Your task to perform on an android device: uninstall "Google Keep" Image 0: 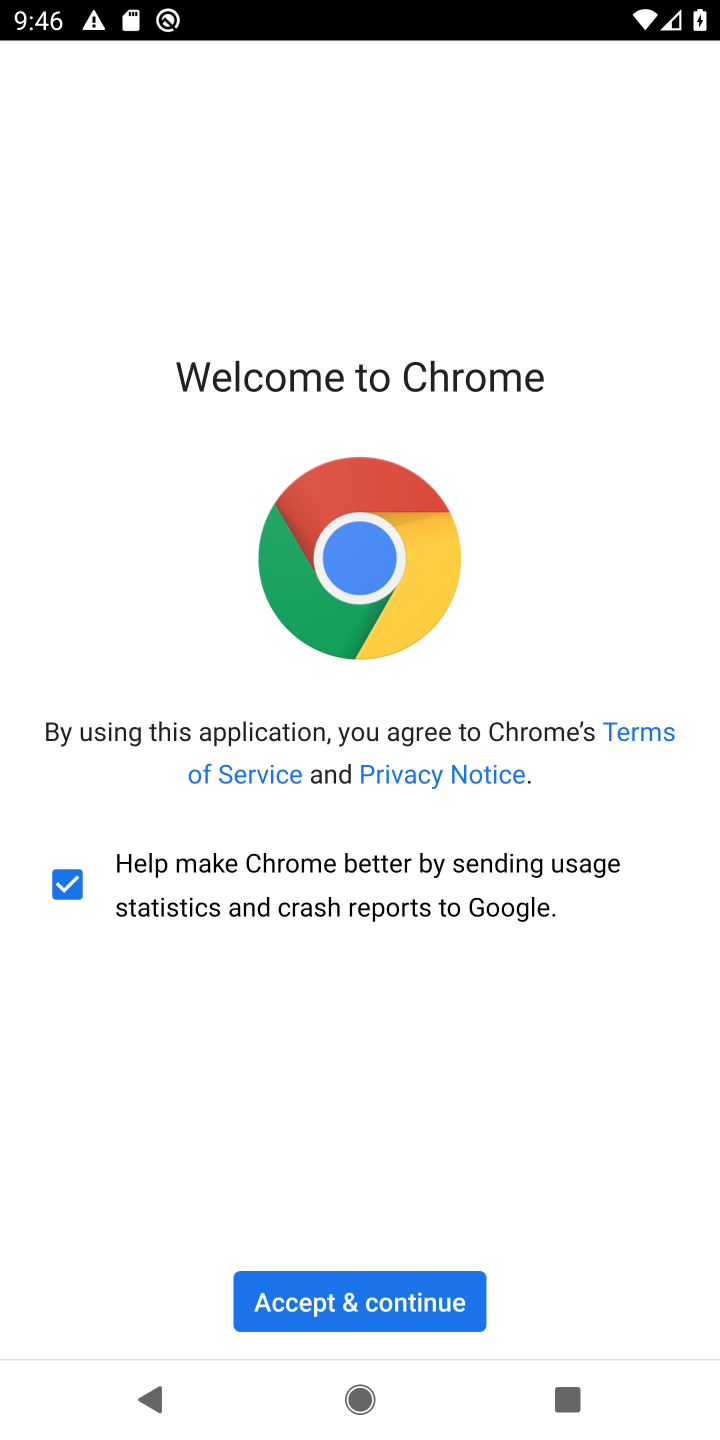
Step 0: press home button
Your task to perform on an android device: uninstall "Google Keep" Image 1: 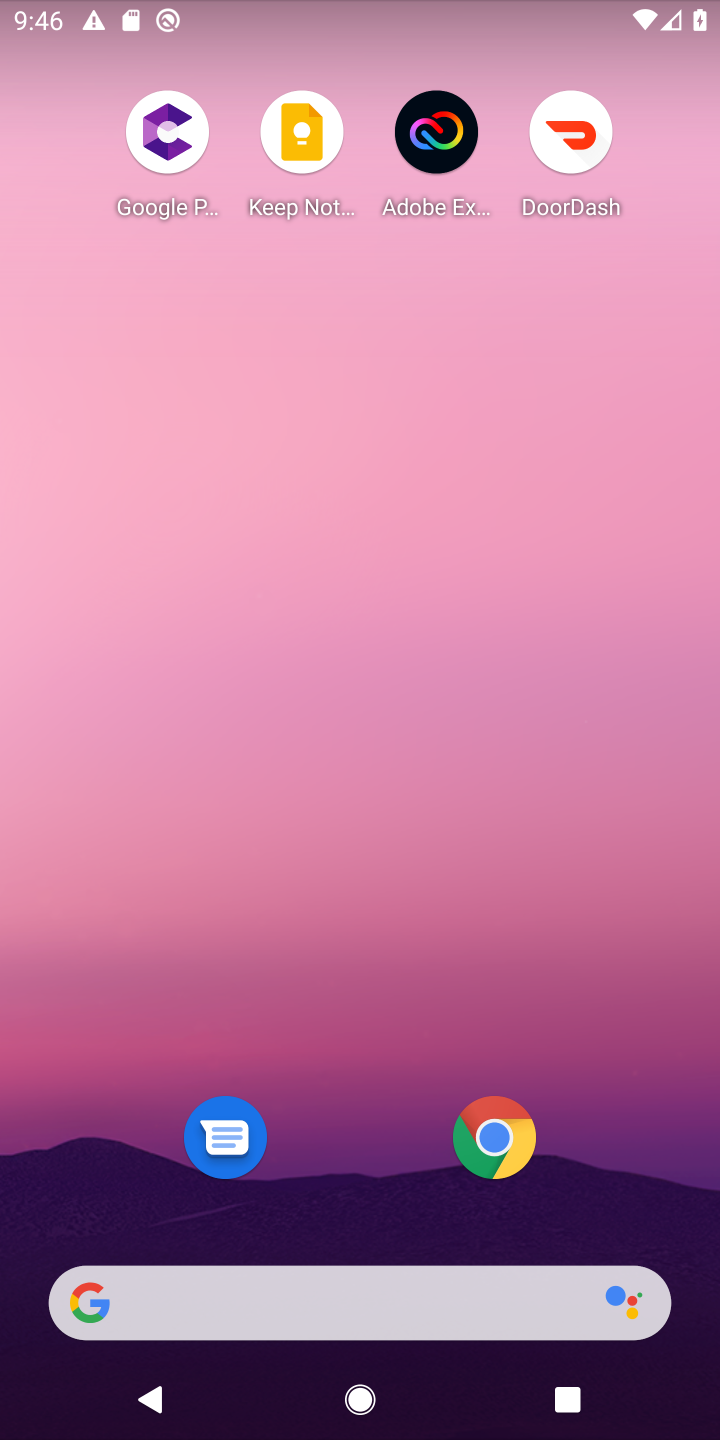
Step 1: press home button
Your task to perform on an android device: uninstall "Google Keep" Image 2: 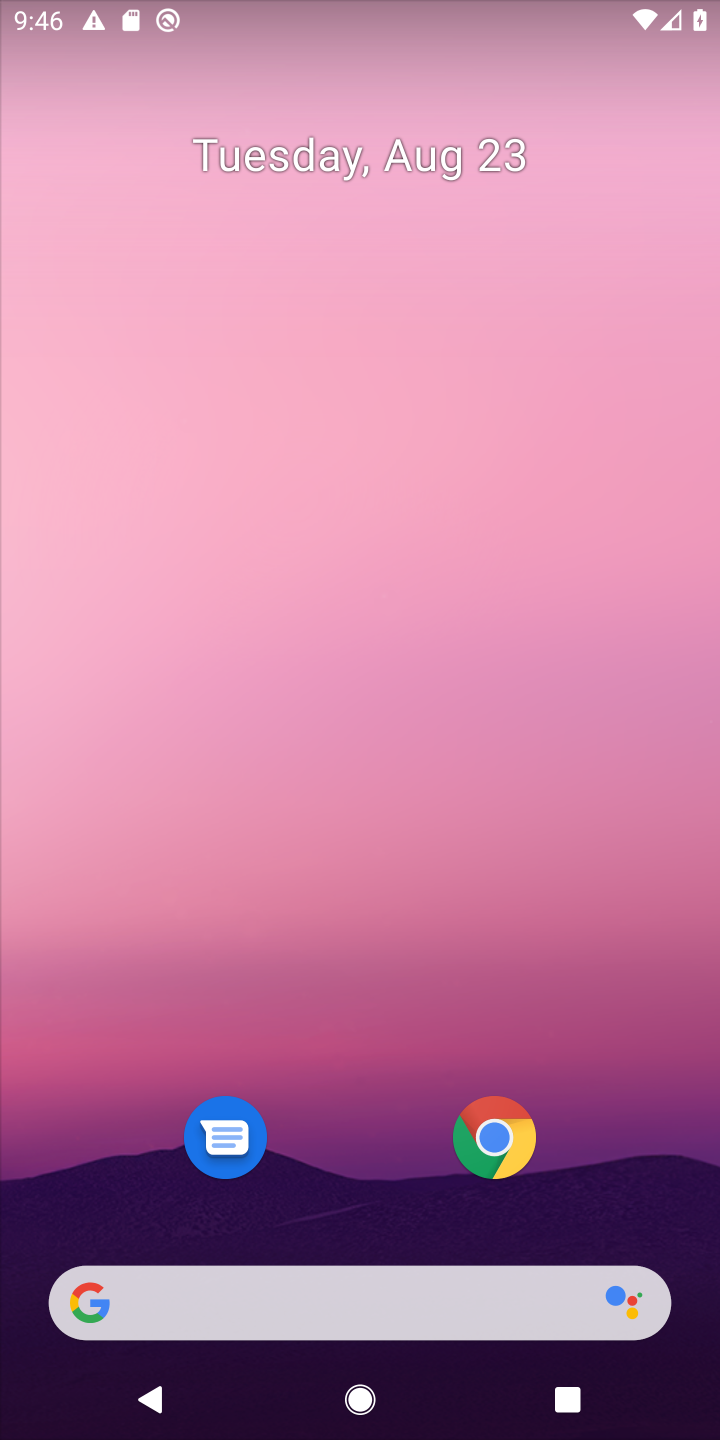
Step 2: drag from (356, 1207) to (655, 849)
Your task to perform on an android device: uninstall "Google Keep" Image 3: 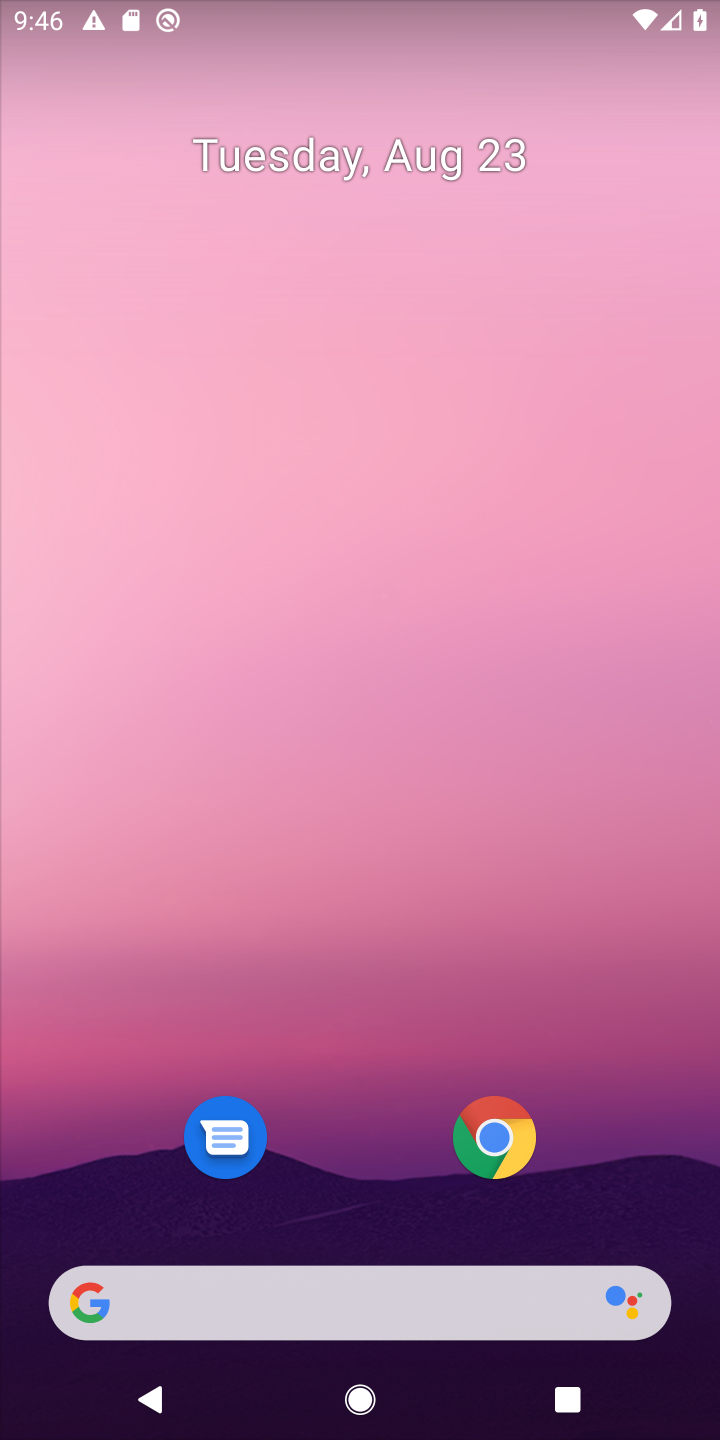
Step 3: drag from (436, 1220) to (412, 7)
Your task to perform on an android device: uninstall "Google Keep" Image 4: 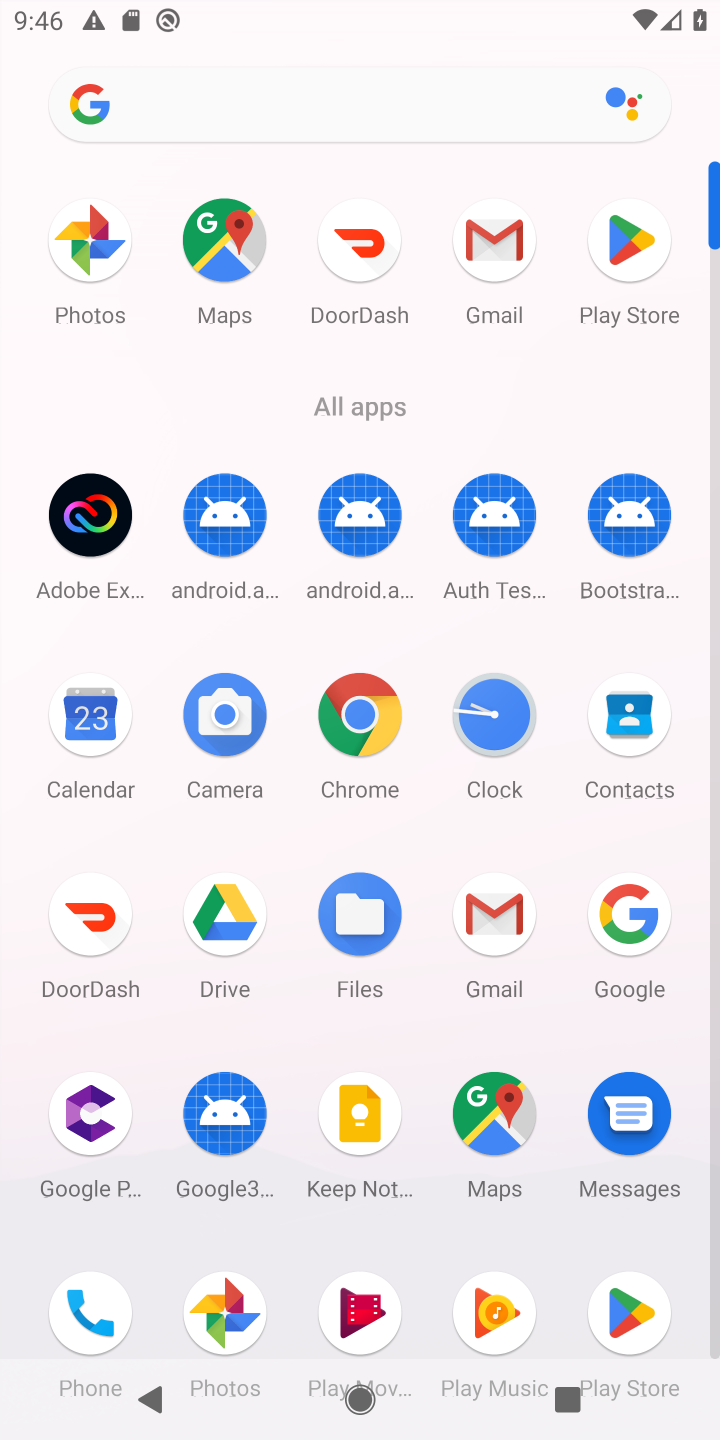
Step 4: click (618, 1318)
Your task to perform on an android device: uninstall "Google Keep" Image 5: 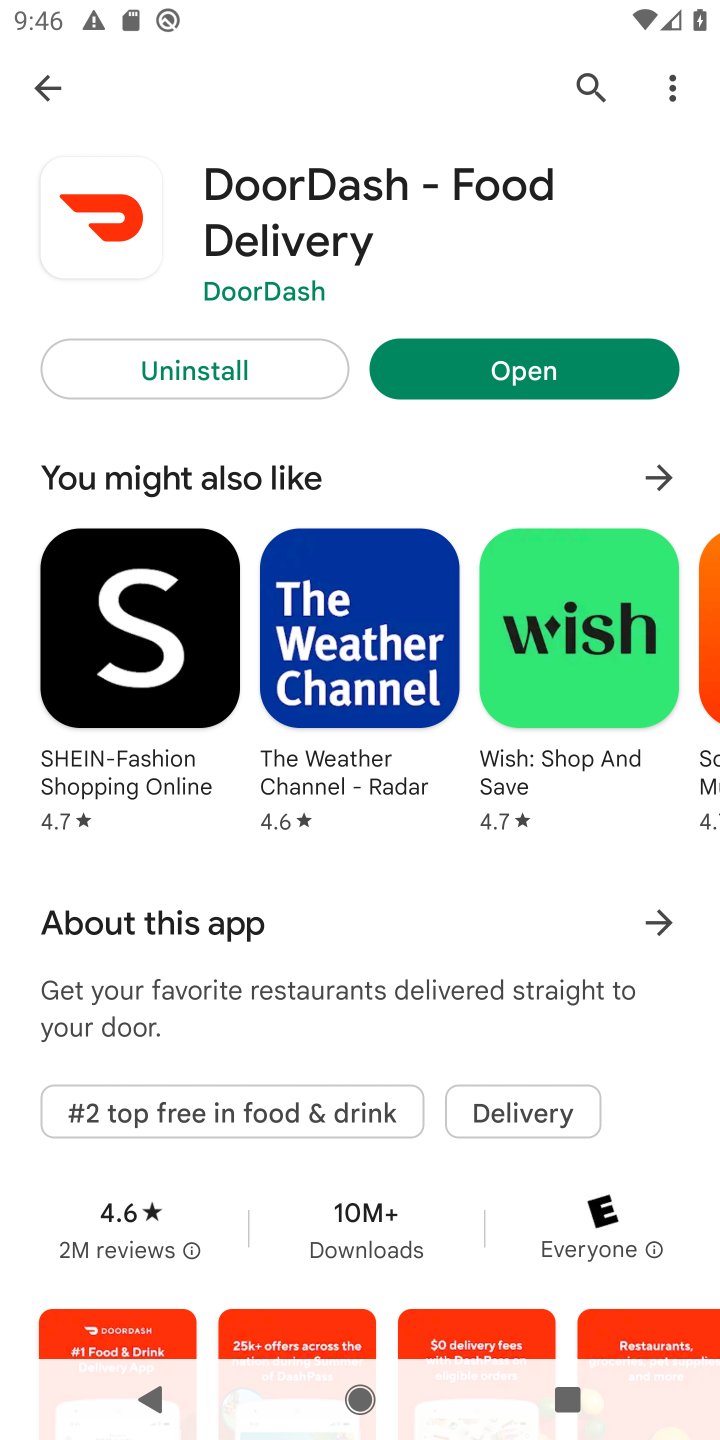
Step 5: click (30, 65)
Your task to perform on an android device: uninstall "Google Keep" Image 6: 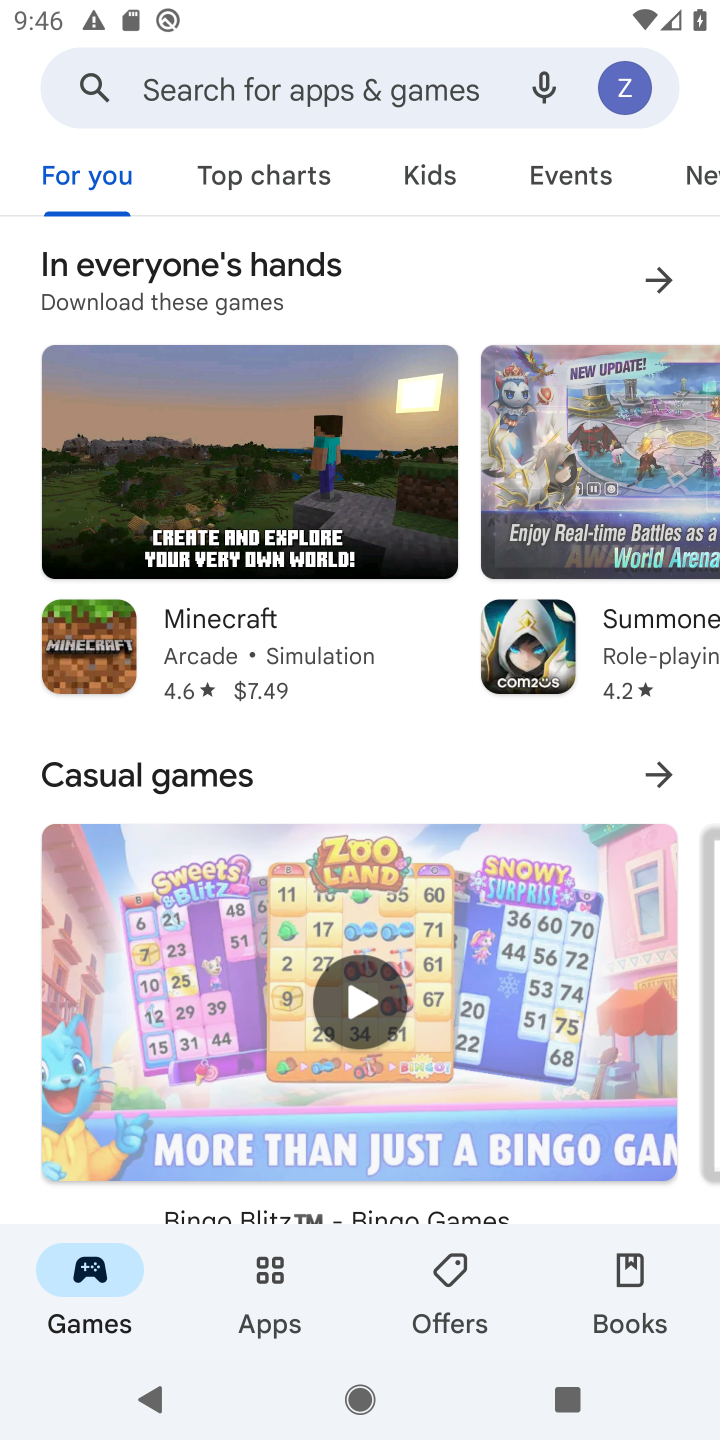
Step 6: click (188, 76)
Your task to perform on an android device: uninstall "Google Keep" Image 7: 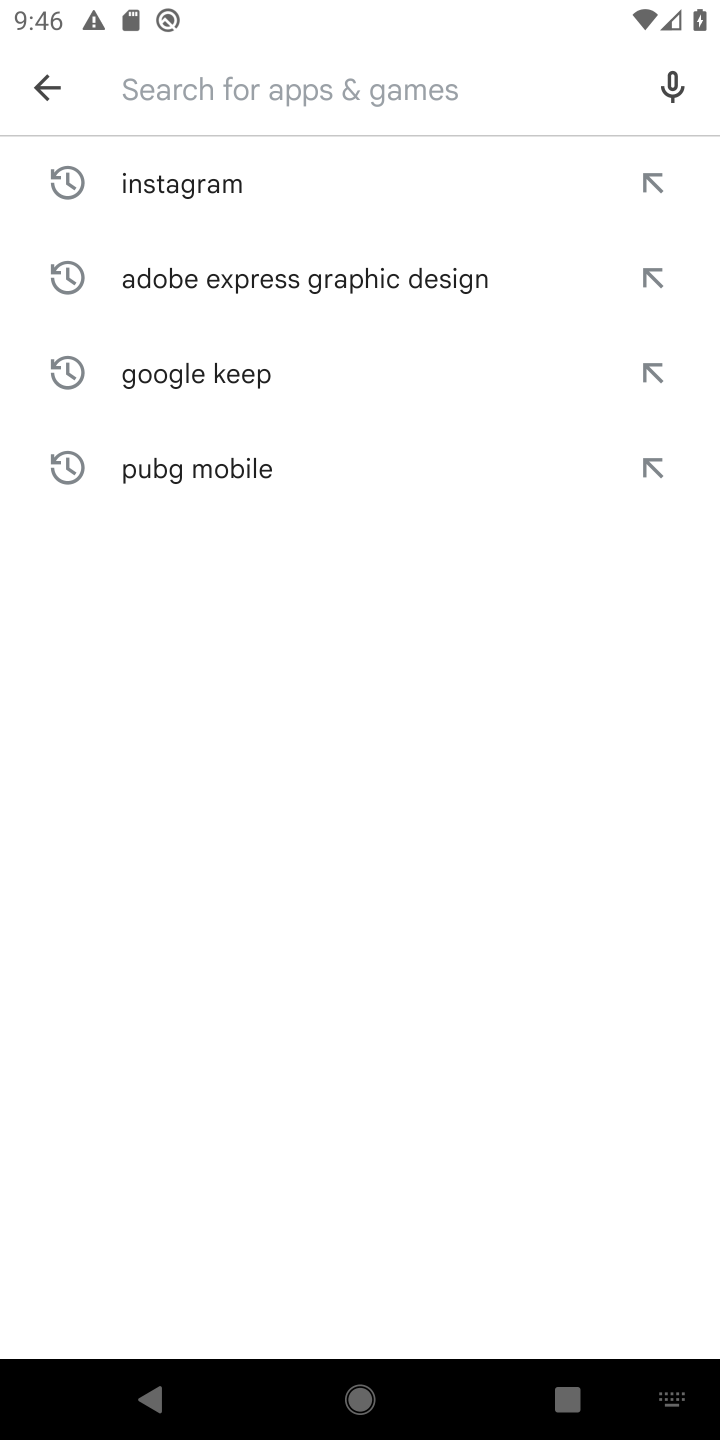
Step 7: click (380, 1416)
Your task to perform on an android device: uninstall "Google Keep" Image 8: 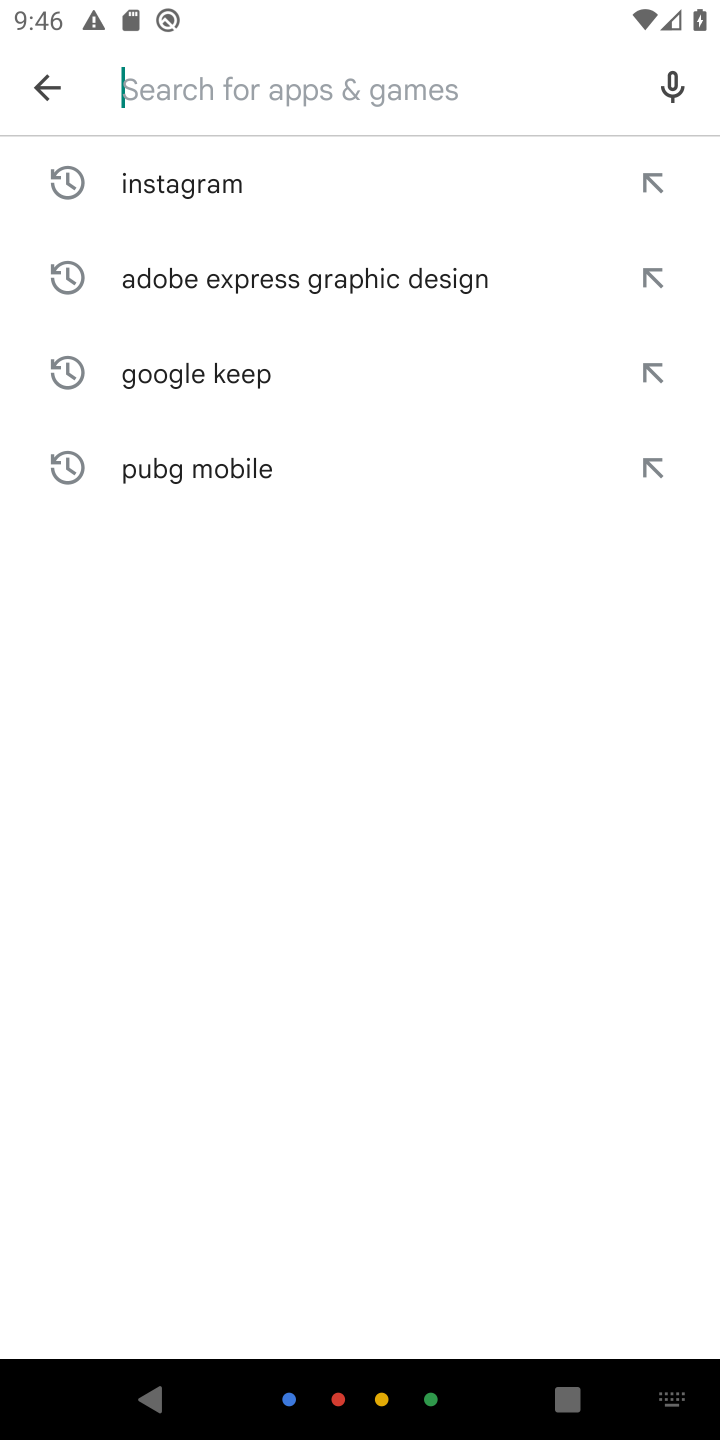
Step 8: type "Google Keep"
Your task to perform on an android device: uninstall "Google Keep" Image 9: 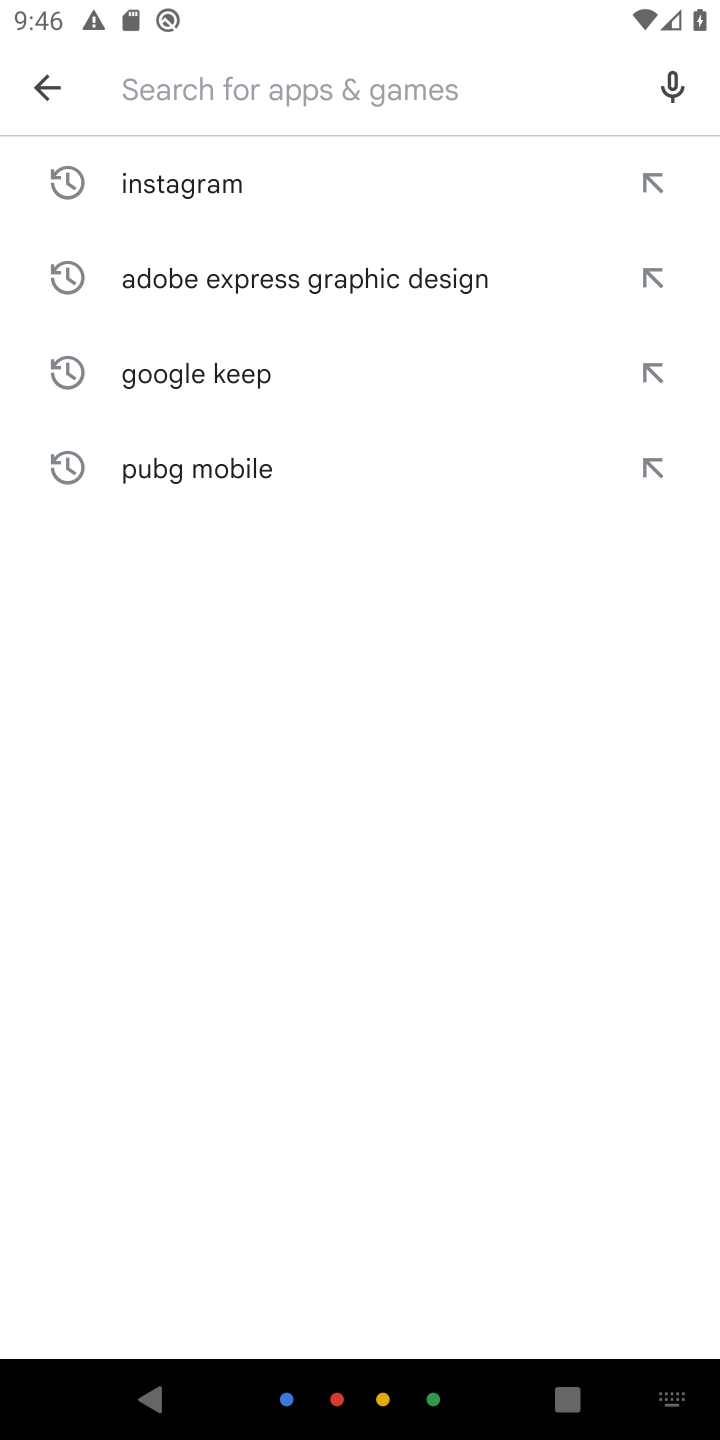
Step 9: click (682, 410)
Your task to perform on an android device: uninstall "Google Keep" Image 10: 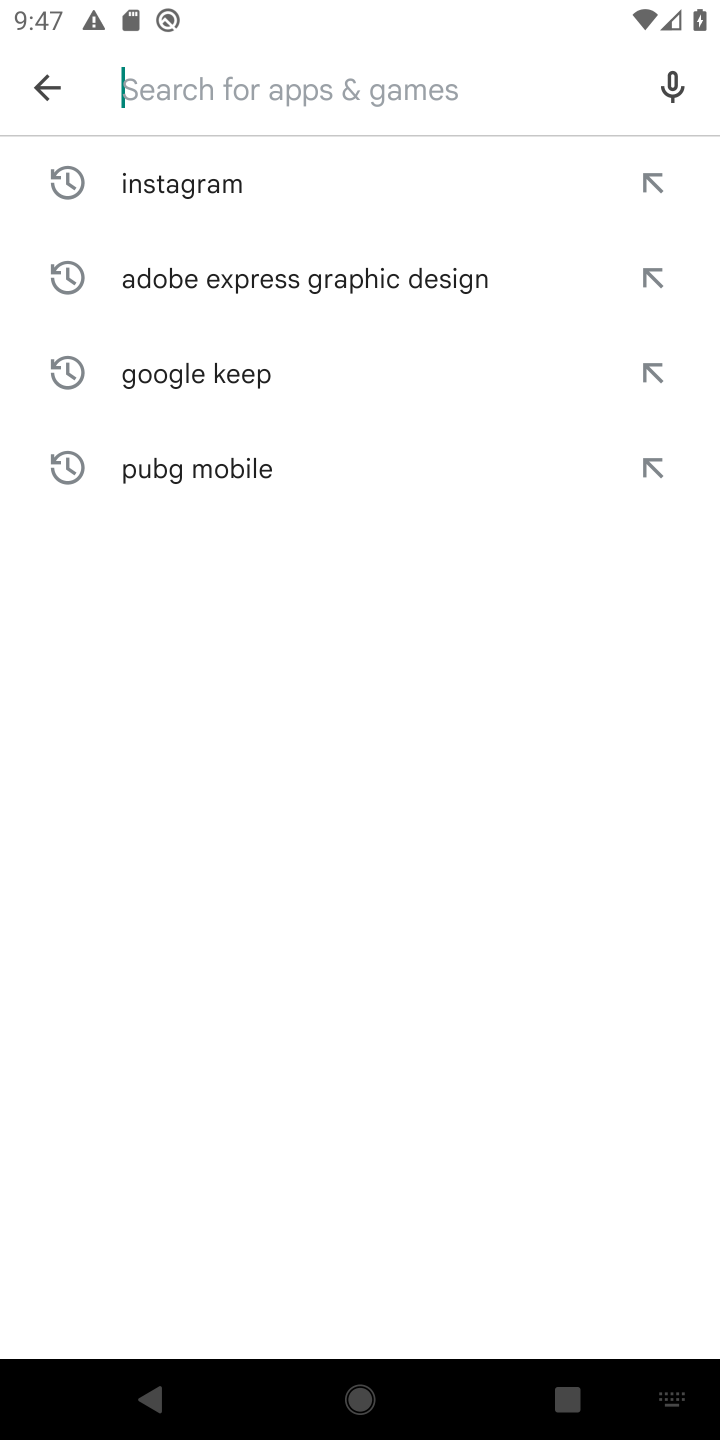
Step 10: type "Google Keep"
Your task to perform on an android device: uninstall "Google Keep" Image 11: 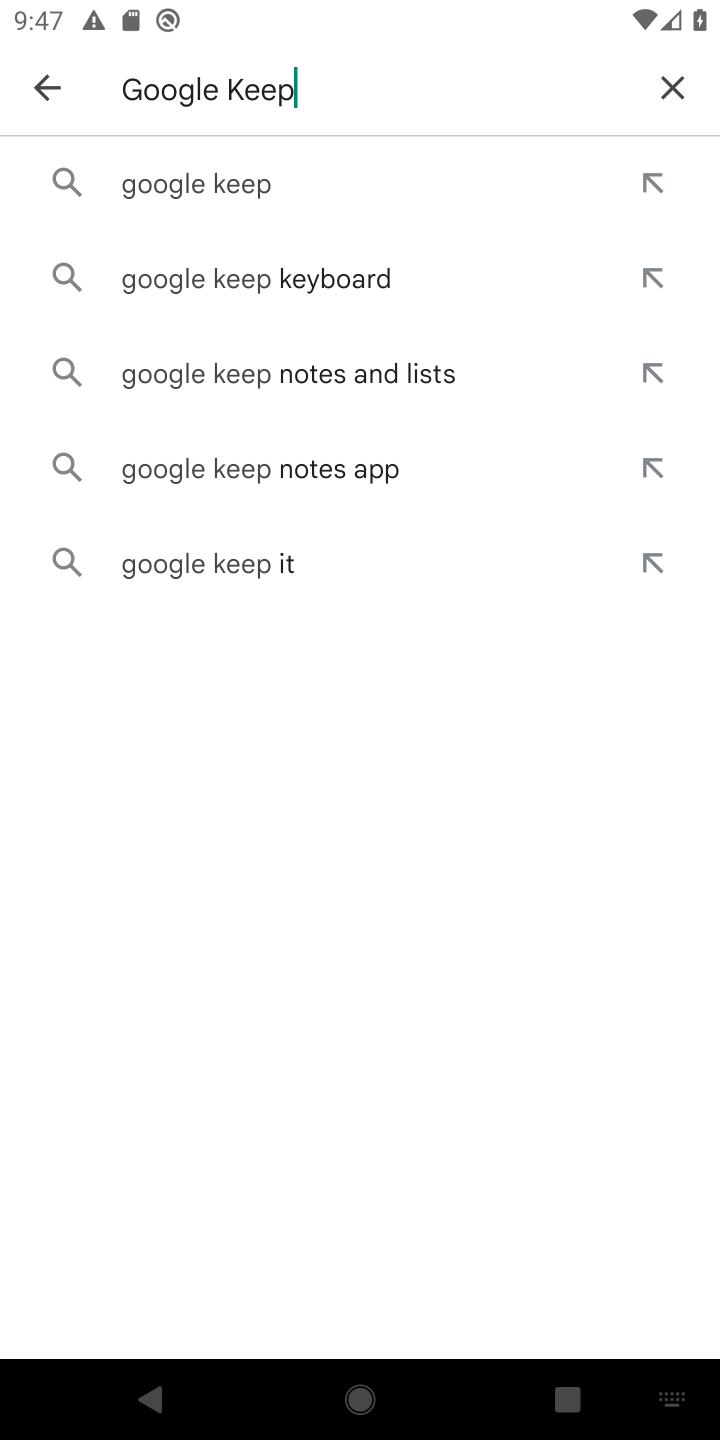
Step 11: click (245, 173)
Your task to perform on an android device: uninstall "Google Keep" Image 12: 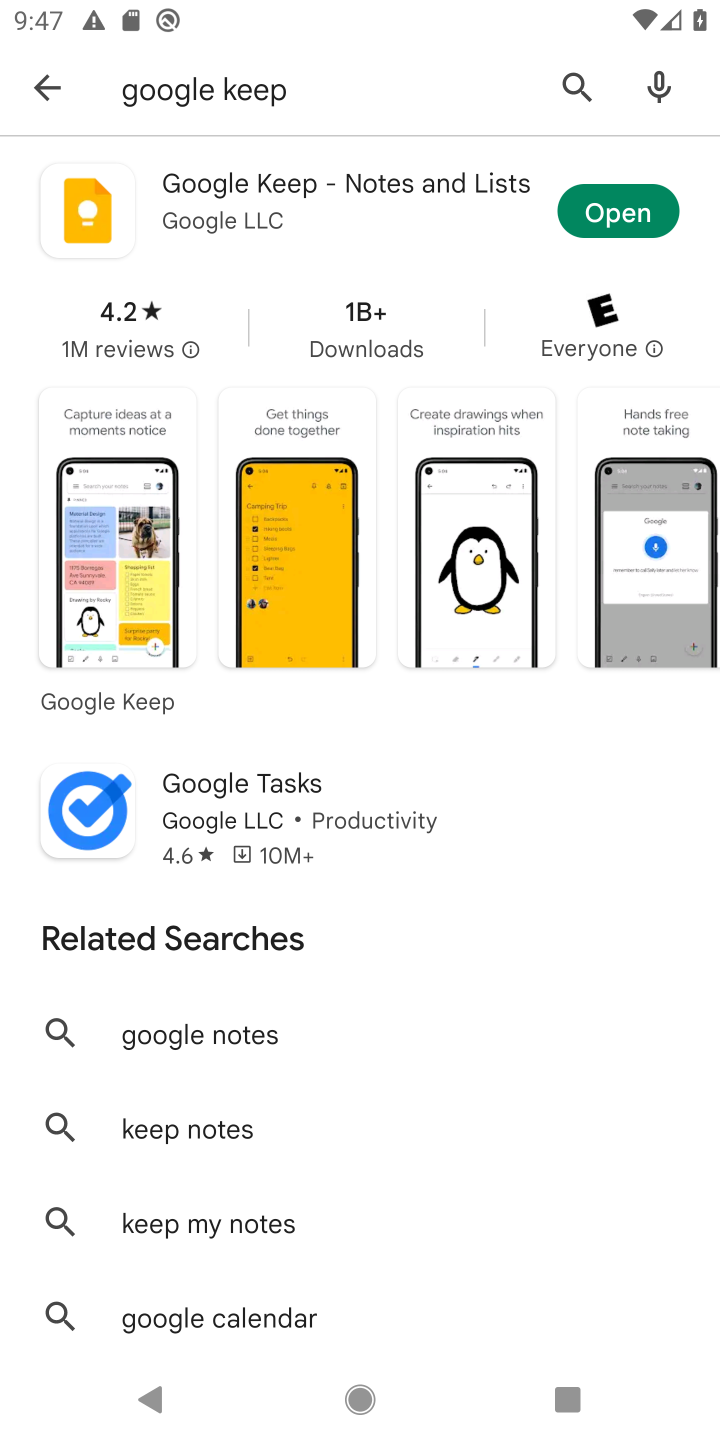
Step 12: click (266, 229)
Your task to perform on an android device: uninstall "Google Keep" Image 13: 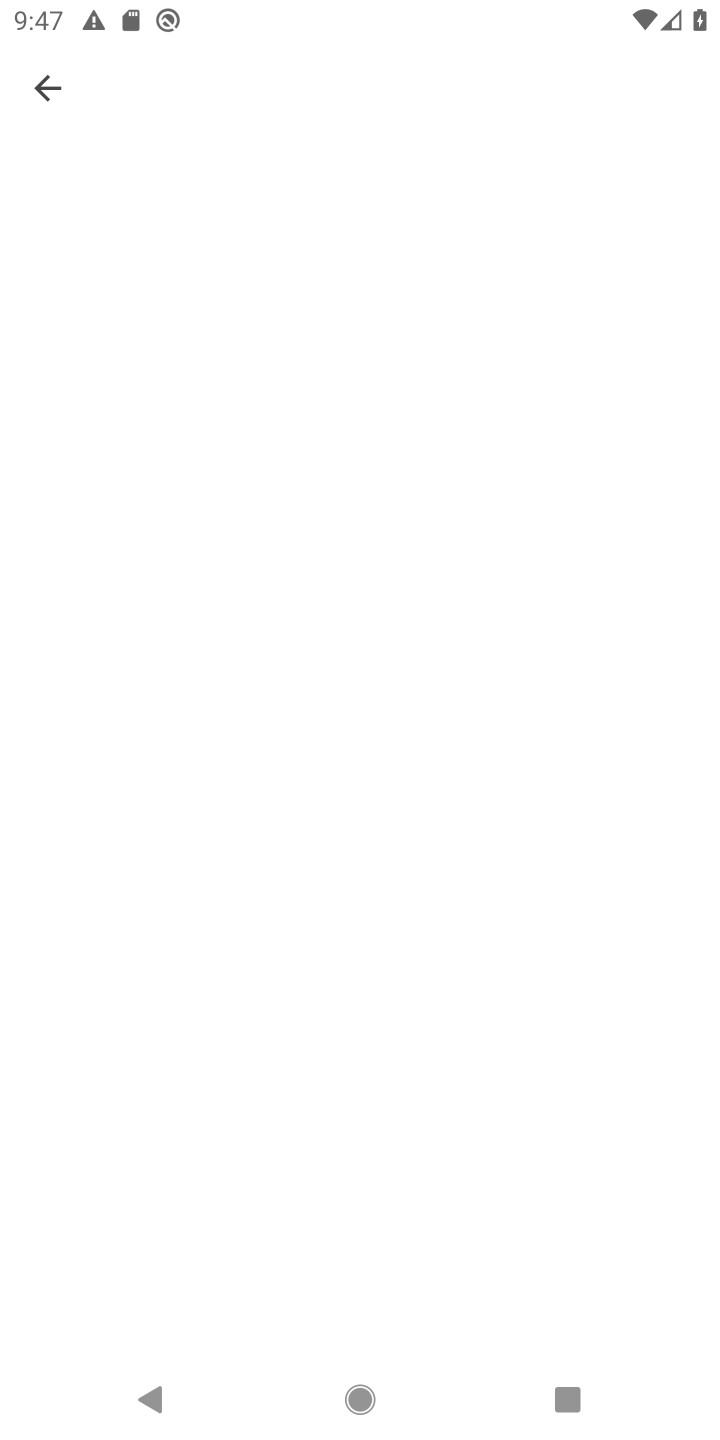
Step 13: click (223, 185)
Your task to perform on an android device: uninstall "Google Keep" Image 14: 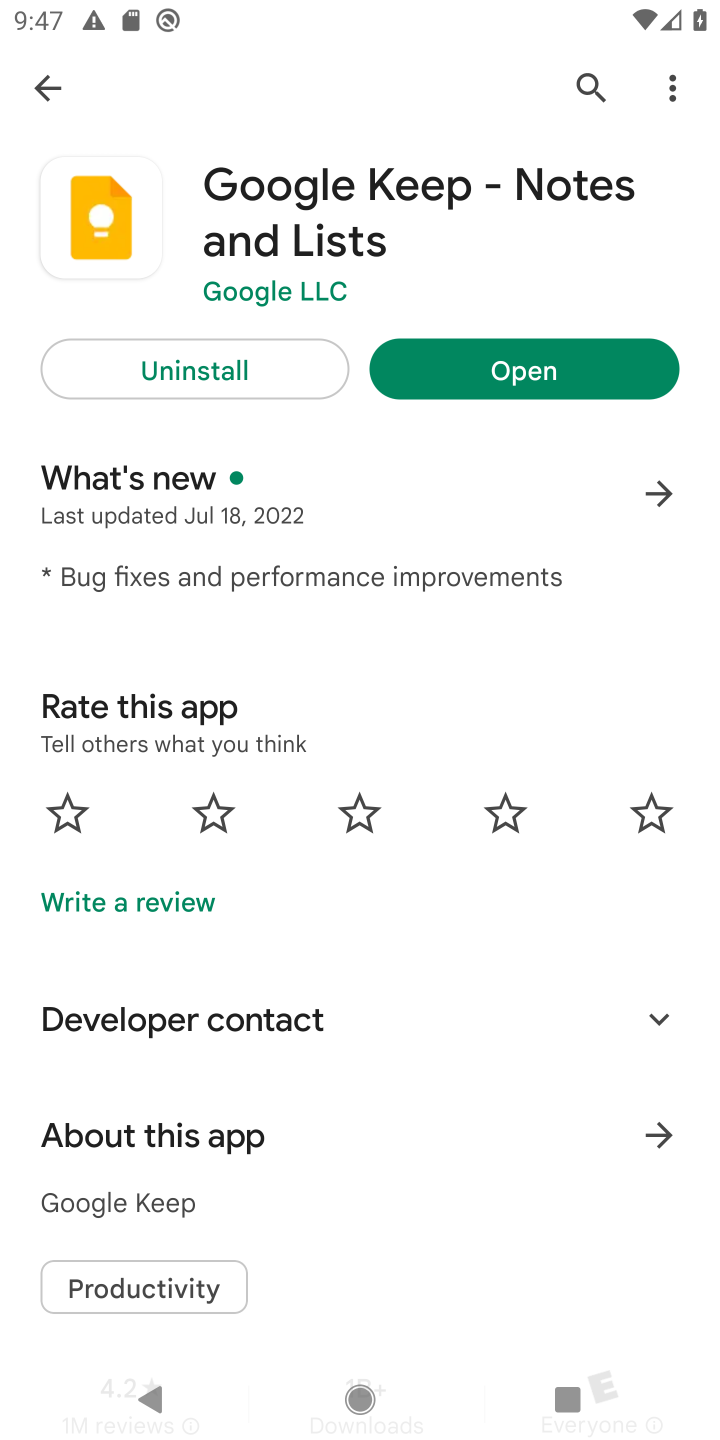
Step 14: click (266, 384)
Your task to perform on an android device: uninstall "Google Keep" Image 15: 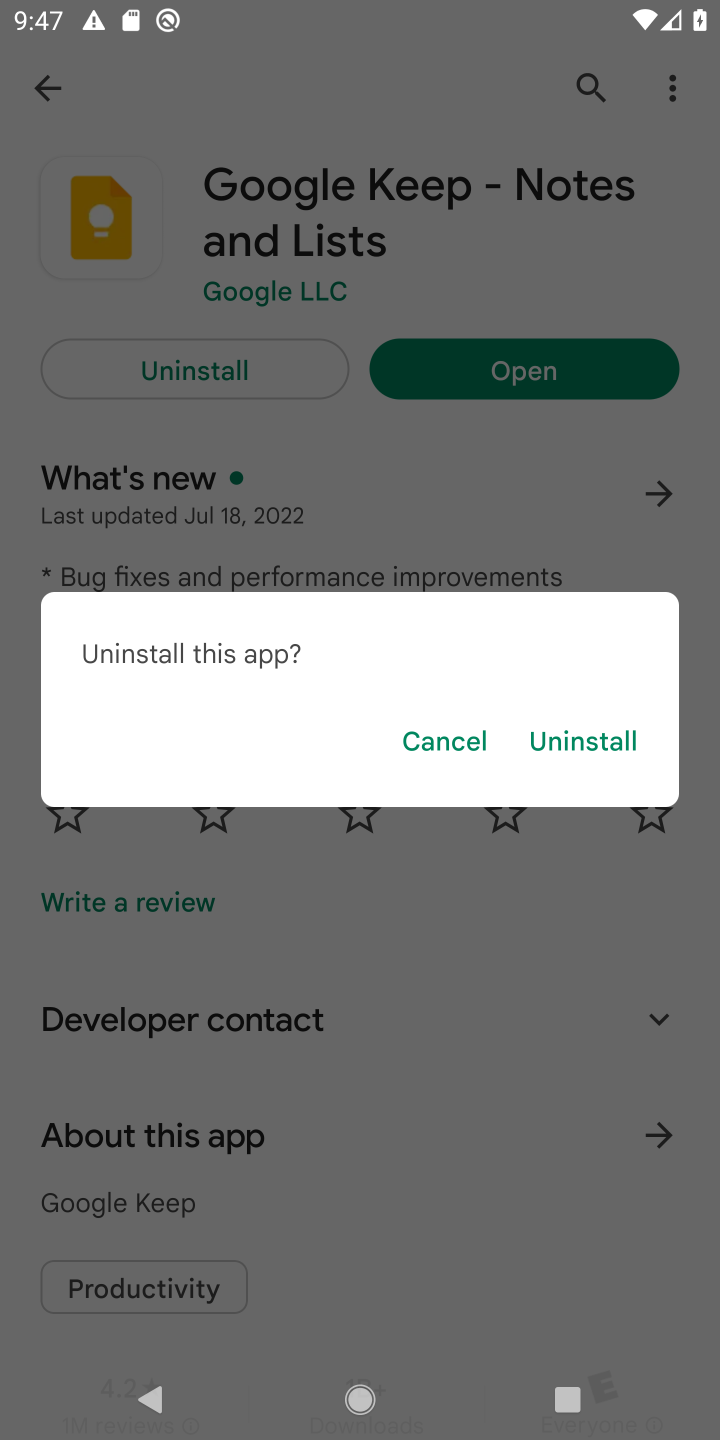
Step 15: click (586, 736)
Your task to perform on an android device: uninstall "Google Keep" Image 16: 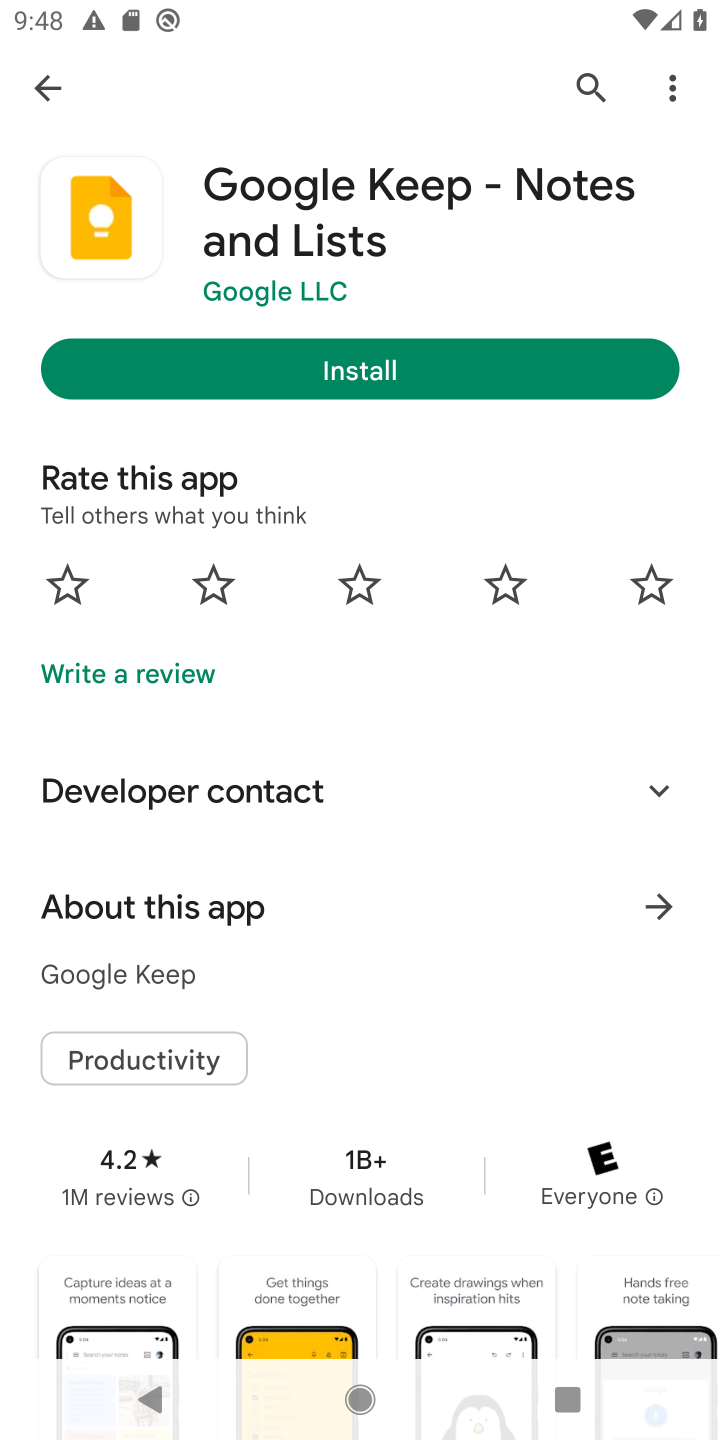
Step 16: task complete